Your task to perform on an android device: Go to Google maps Image 0: 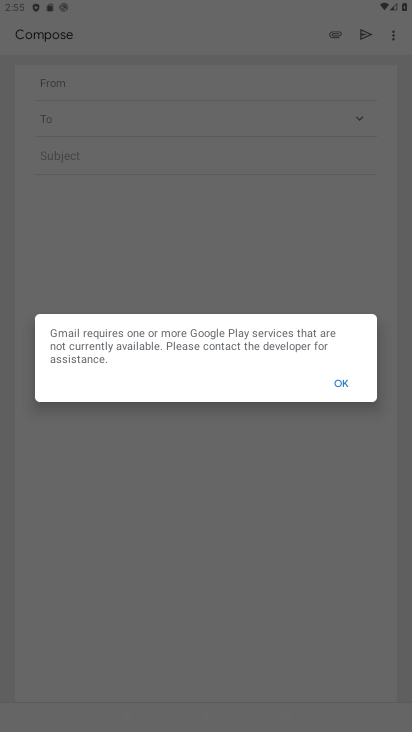
Step 0: drag from (177, 665) to (352, 116)
Your task to perform on an android device: Go to Google maps Image 1: 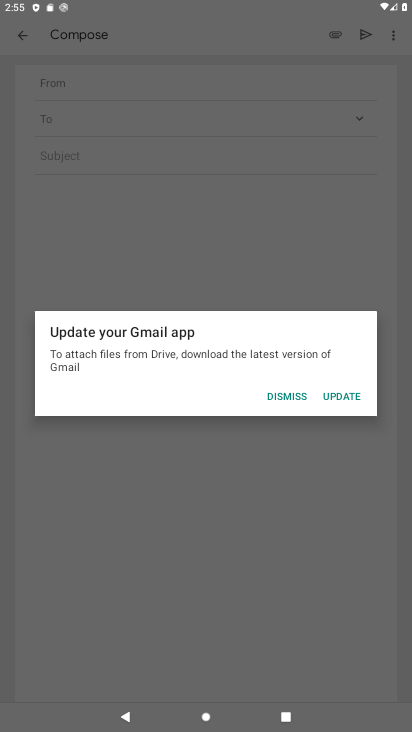
Step 1: press home button
Your task to perform on an android device: Go to Google maps Image 2: 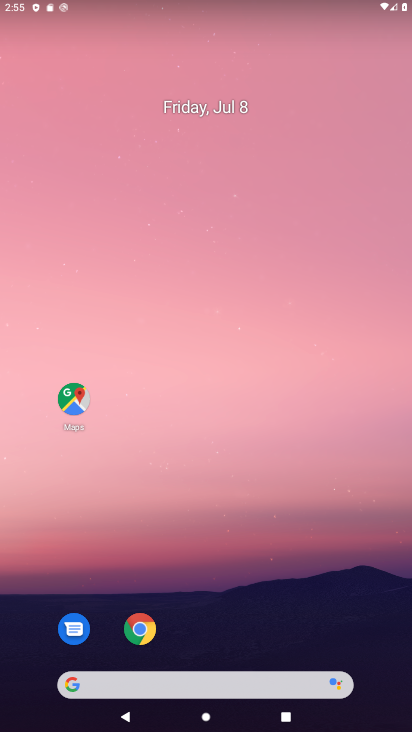
Step 2: drag from (238, 558) to (275, 222)
Your task to perform on an android device: Go to Google maps Image 3: 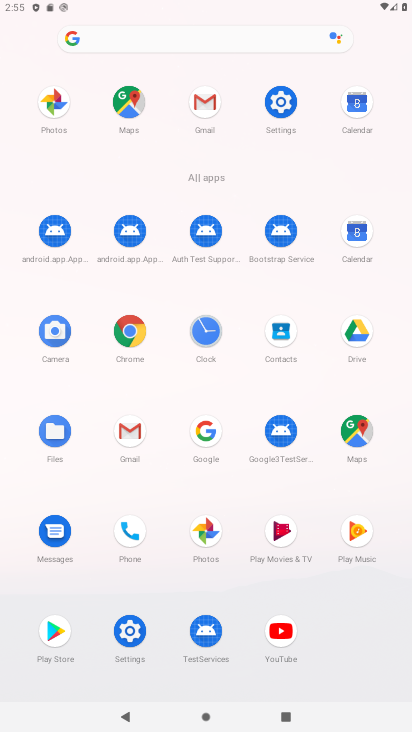
Step 3: click (351, 435)
Your task to perform on an android device: Go to Google maps Image 4: 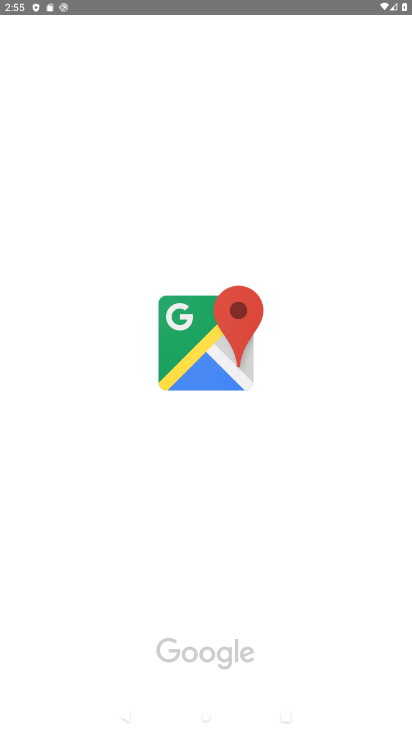
Step 4: click (178, 321)
Your task to perform on an android device: Go to Google maps Image 5: 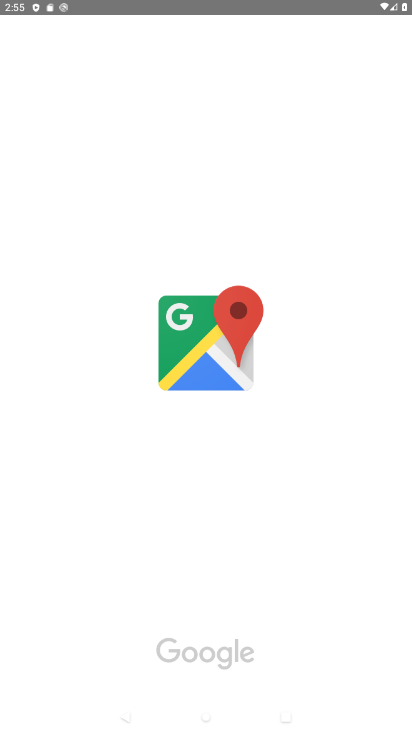
Step 5: task complete